Your task to perform on an android device: Open Yahoo.com Image 0: 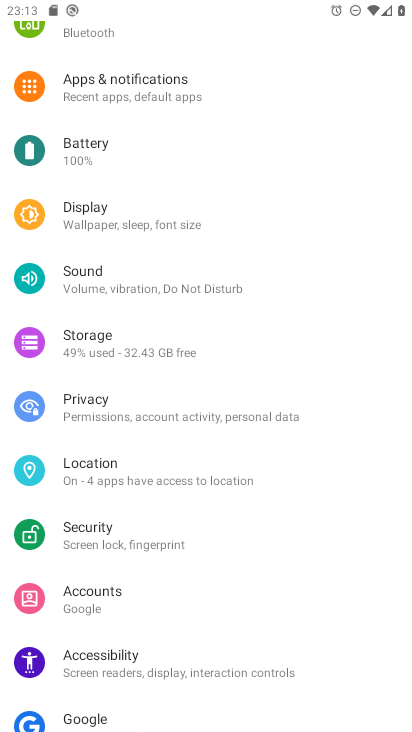
Step 0: press home button
Your task to perform on an android device: Open Yahoo.com Image 1: 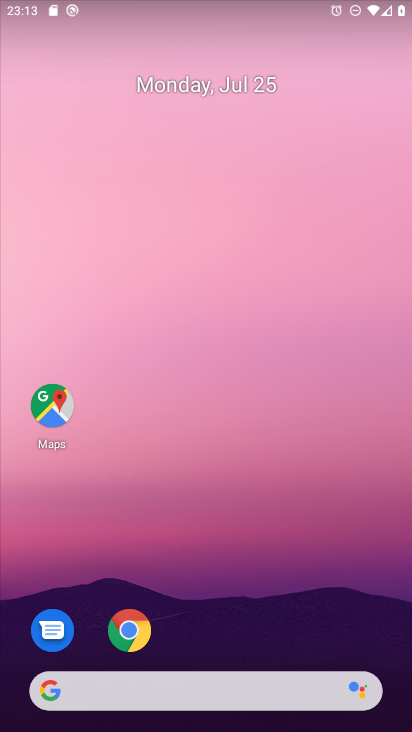
Step 1: click (132, 635)
Your task to perform on an android device: Open Yahoo.com Image 2: 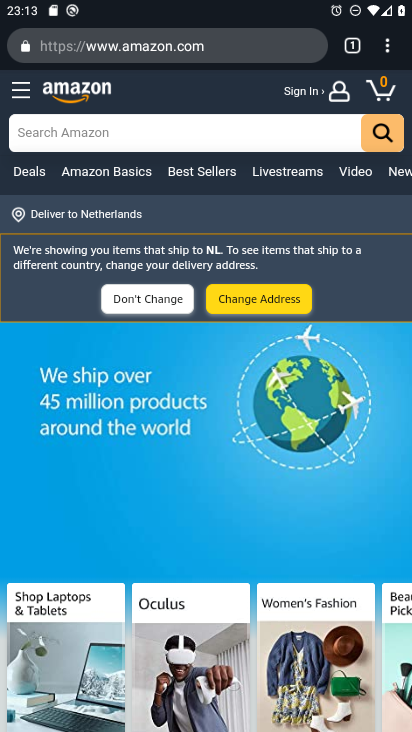
Step 2: click (186, 38)
Your task to perform on an android device: Open Yahoo.com Image 3: 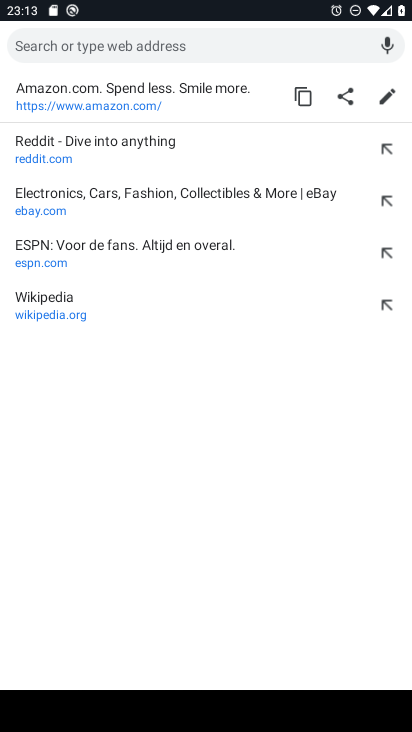
Step 3: type "yahoo.com"
Your task to perform on an android device: Open Yahoo.com Image 4: 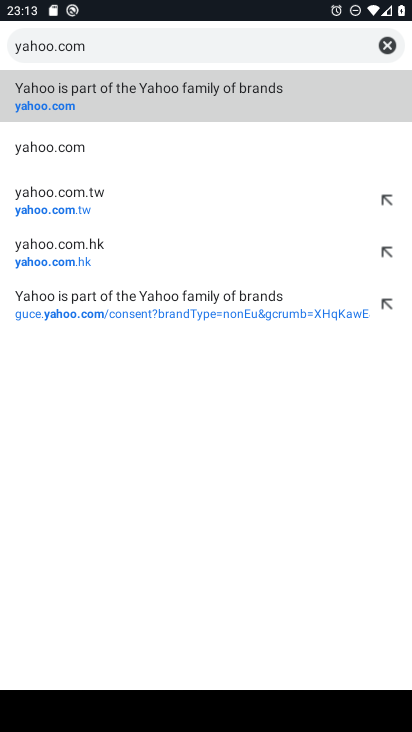
Step 4: click (101, 97)
Your task to perform on an android device: Open Yahoo.com Image 5: 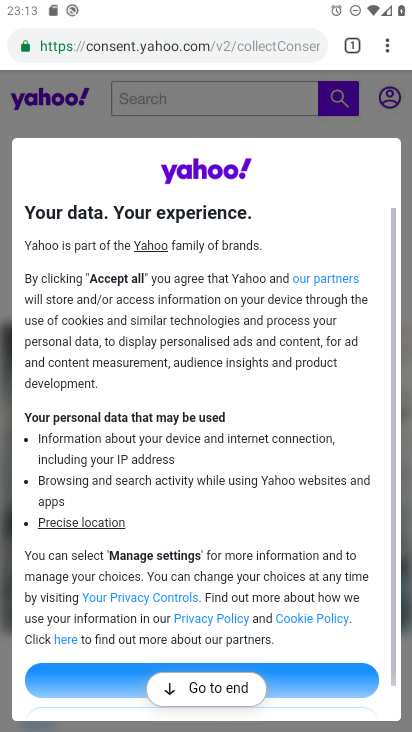
Step 5: task complete